Your task to perform on an android device: open a bookmark in the chrome app Image 0: 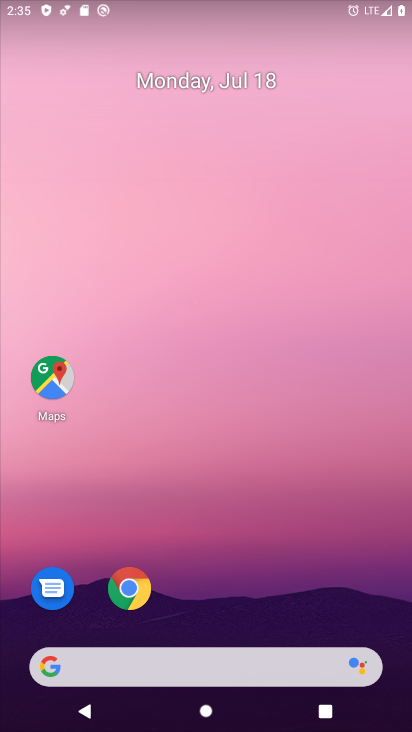
Step 0: click (129, 581)
Your task to perform on an android device: open a bookmark in the chrome app Image 1: 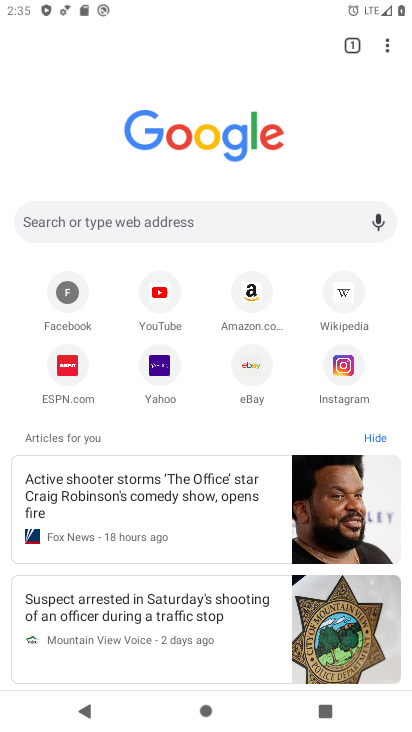
Step 1: drag from (386, 47) to (234, 163)
Your task to perform on an android device: open a bookmark in the chrome app Image 2: 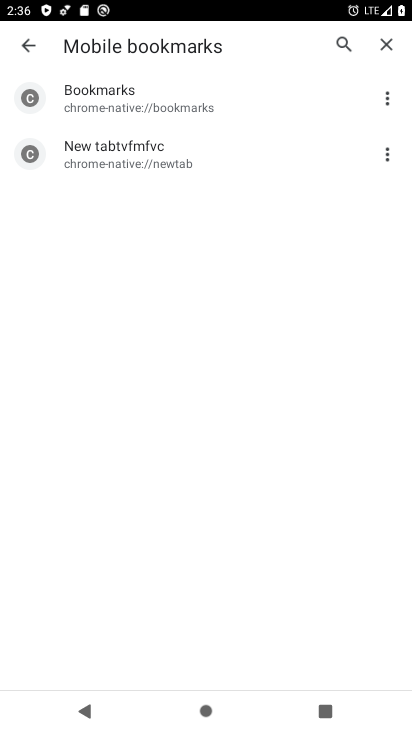
Step 2: click (168, 155)
Your task to perform on an android device: open a bookmark in the chrome app Image 3: 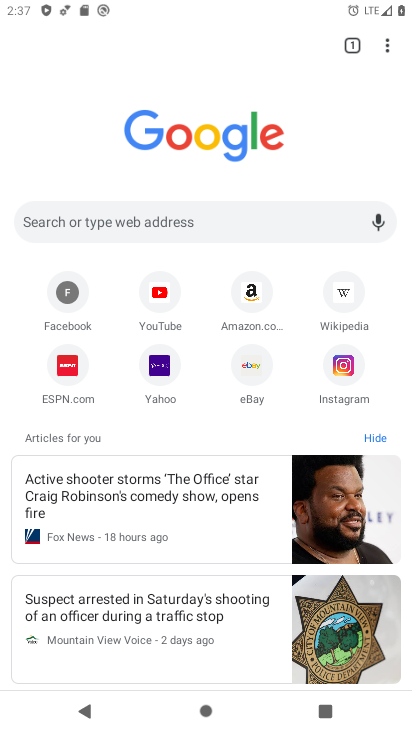
Step 3: drag from (389, 43) to (253, 174)
Your task to perform on an android device: open a bookmark in the chrome app Image 4: 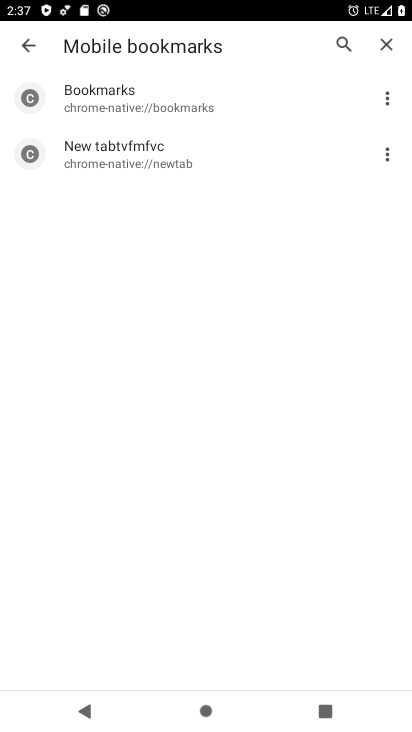
Step 4: click (100, 153)
Your task to perform on an android device: open a bookmark in the chrome app Image 5: 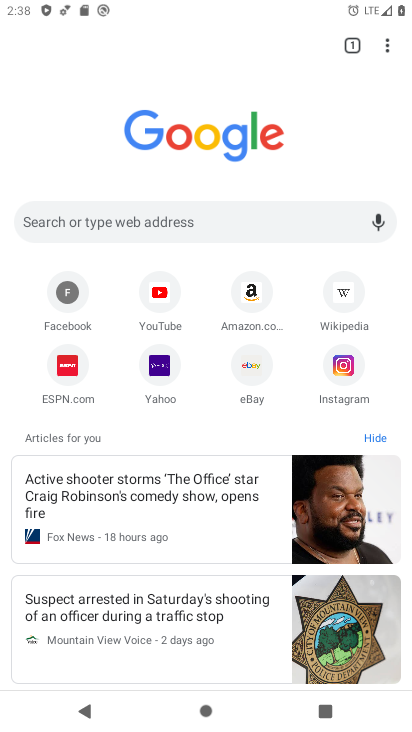
Step 5: task complete